Your task to perform on an android device: turn off location Image 0: 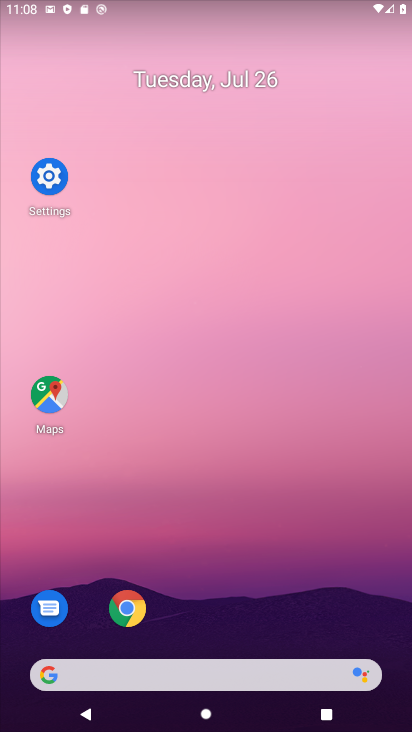
Step 0: click (54, 171)
Your task to perform on an android device: turn off location Image 1: 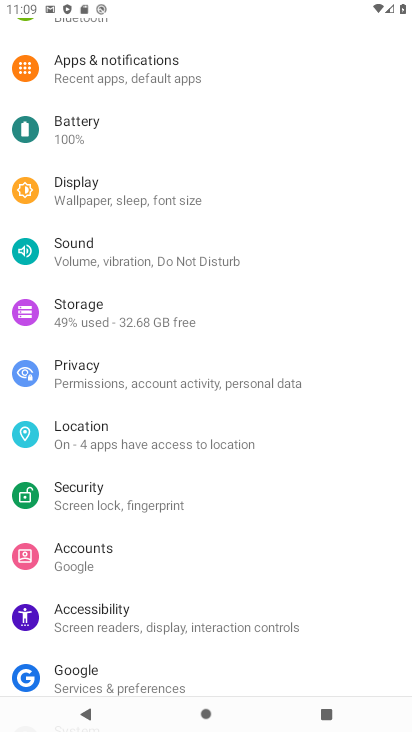
Step 1: click (141, 428)
Your task to perform on an android device: turn off location Image 2: 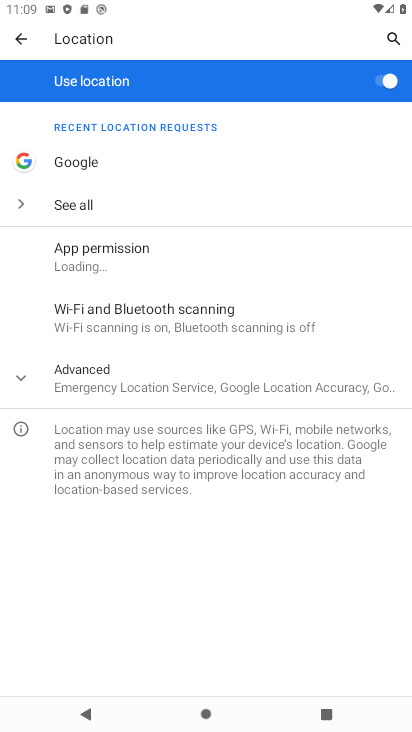
Step 2: click (382, 81)
Your task to perform on an android device: turn off location Image 3: 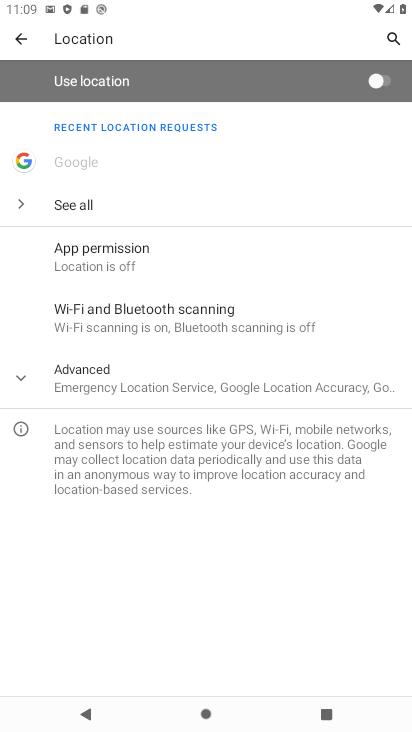
Step 3: task complete